Your task to perform on an android device: Go to display settings Image 0: 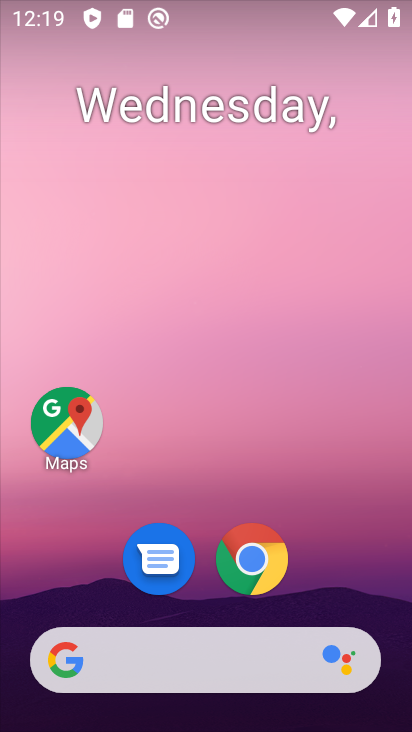
Step 0: drag from (207, 592) to (303, 127)
Your task to perform on an android device: Go to display settings Image 1: 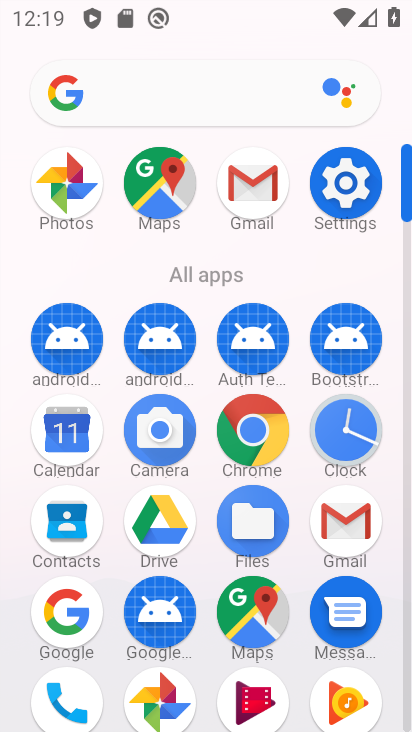
Step 1: click (356, 203)
Your task to perform on an android device: Go to display settings Image 2: 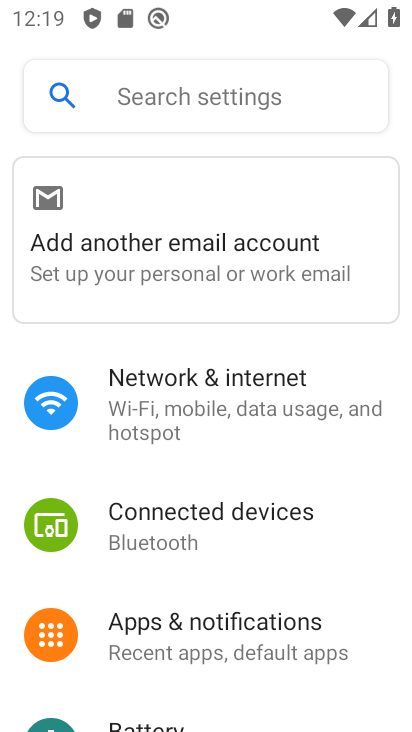
Step 2: drag from (203, 574) to (243, 337)
Your task to perform on an android device: Go to display settings Image 3: 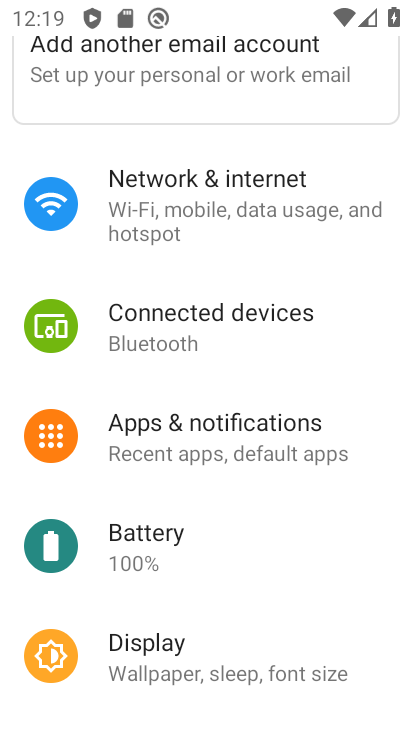
Step 3: click (186, 657)
Your task to perform on an android device: Go to display settings Image 4: 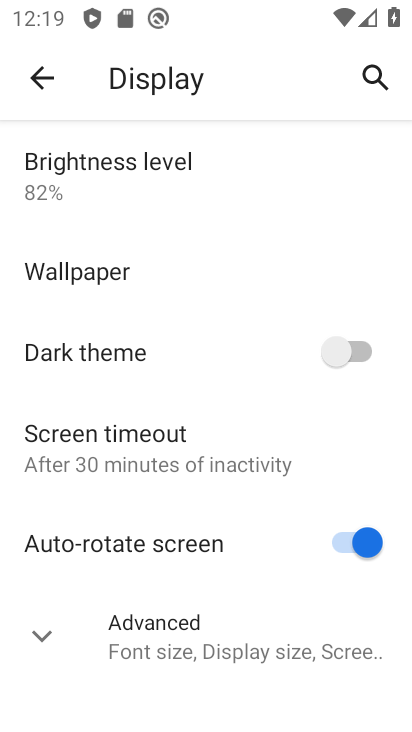
Step 4: task complete